Your task to perform on an android device: turn on wifi Image 0: 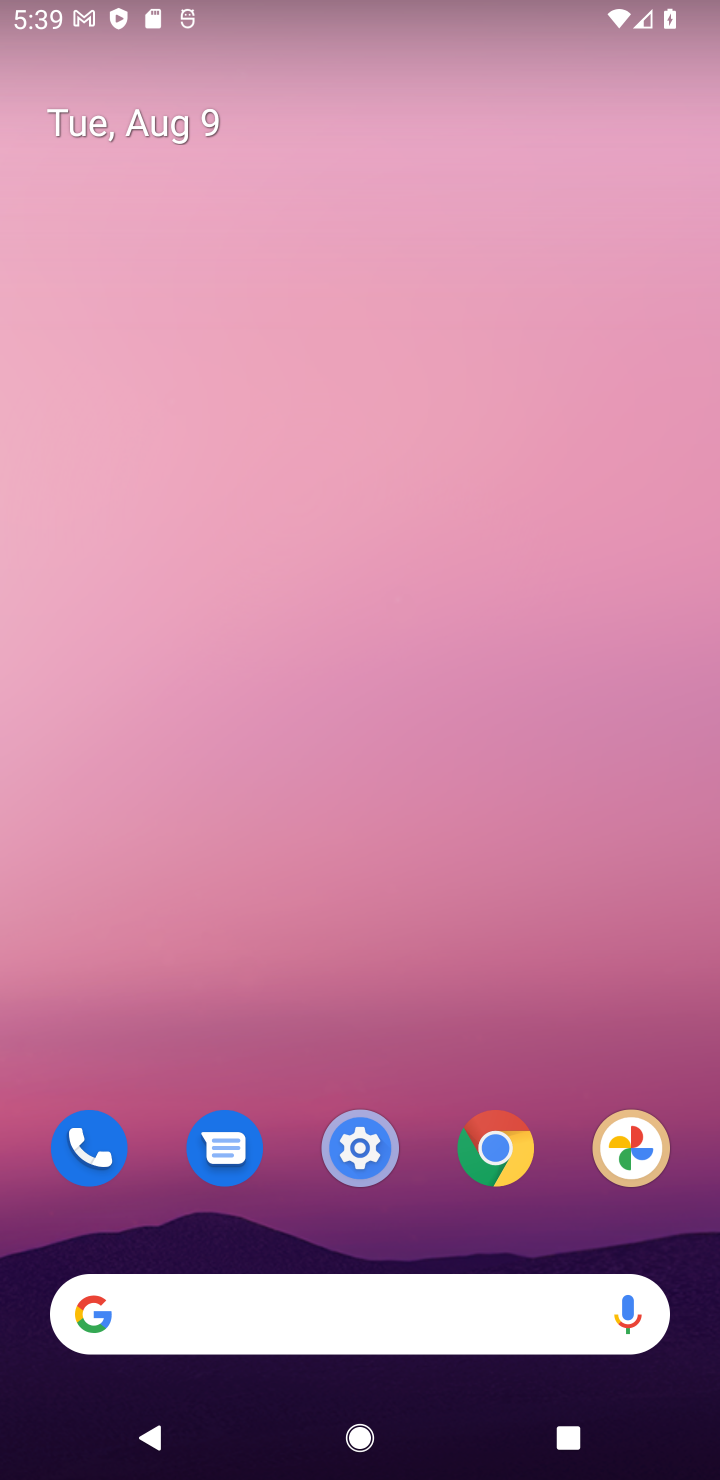
Step 0: click (380, 1167)
Your task to perform on an android device: turn on wifi Image 1: 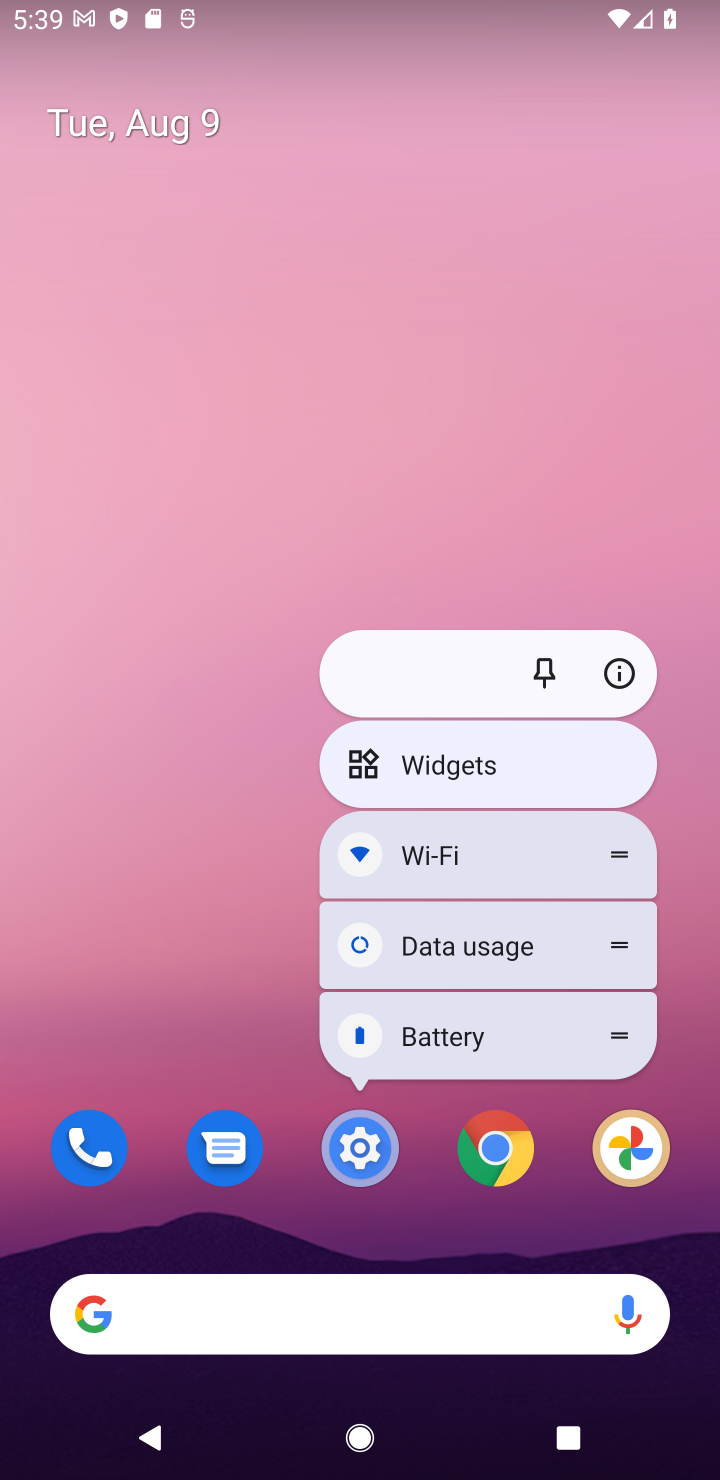
Step 1: click (372, 1145)
Your task to perform on an android device: turn on wifi Image 2: 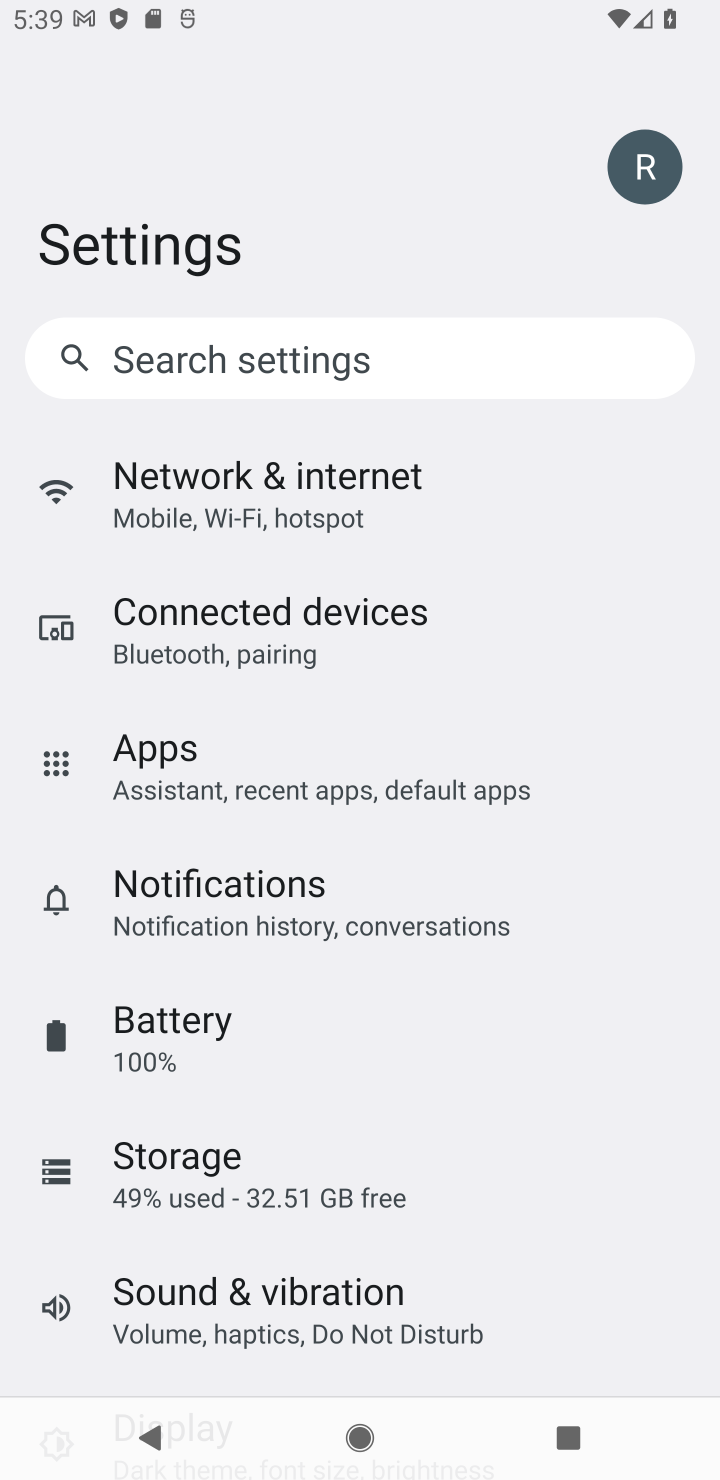
Step 2: click (253, 502)
Your task to perform on an android device: turn on wifi Image 3: 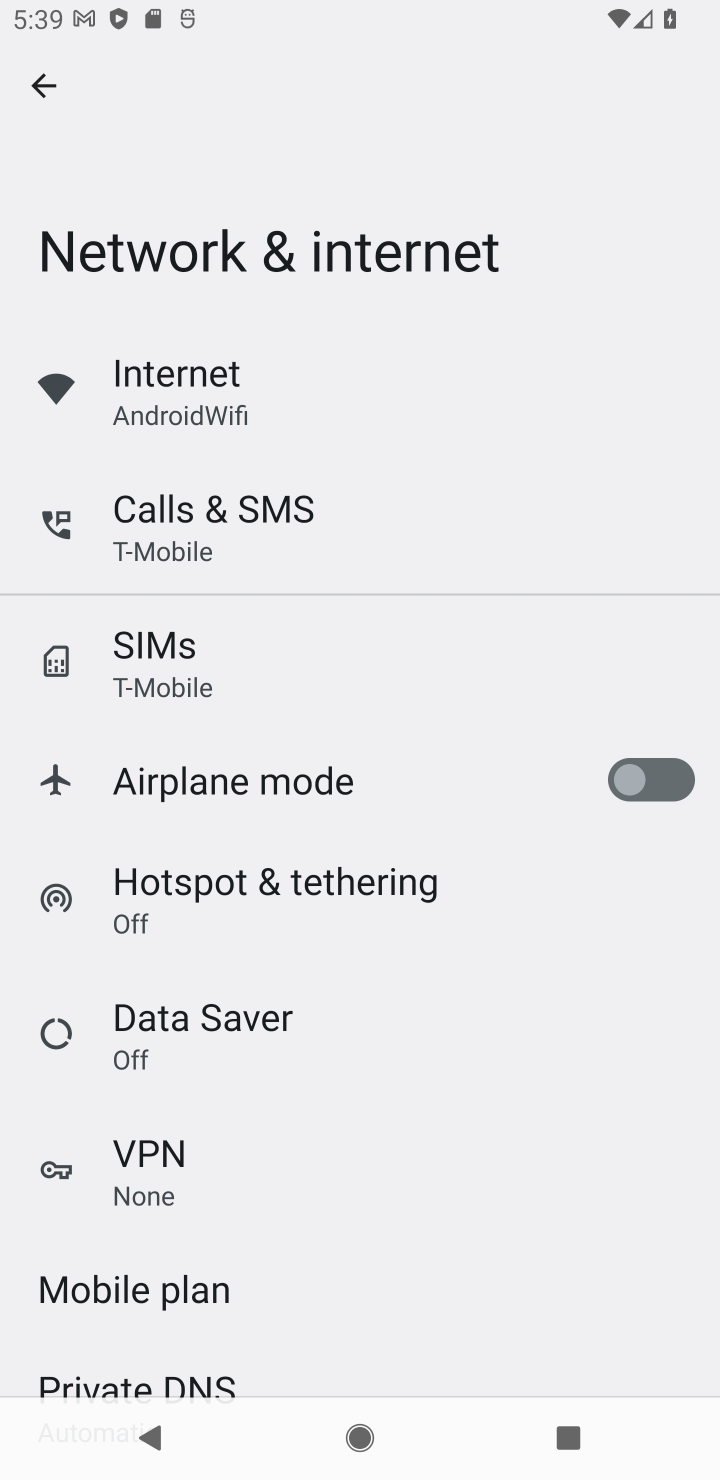
Step 3: click (177, 414)
Your task to perform on an android device: turn on wifi Image 4: 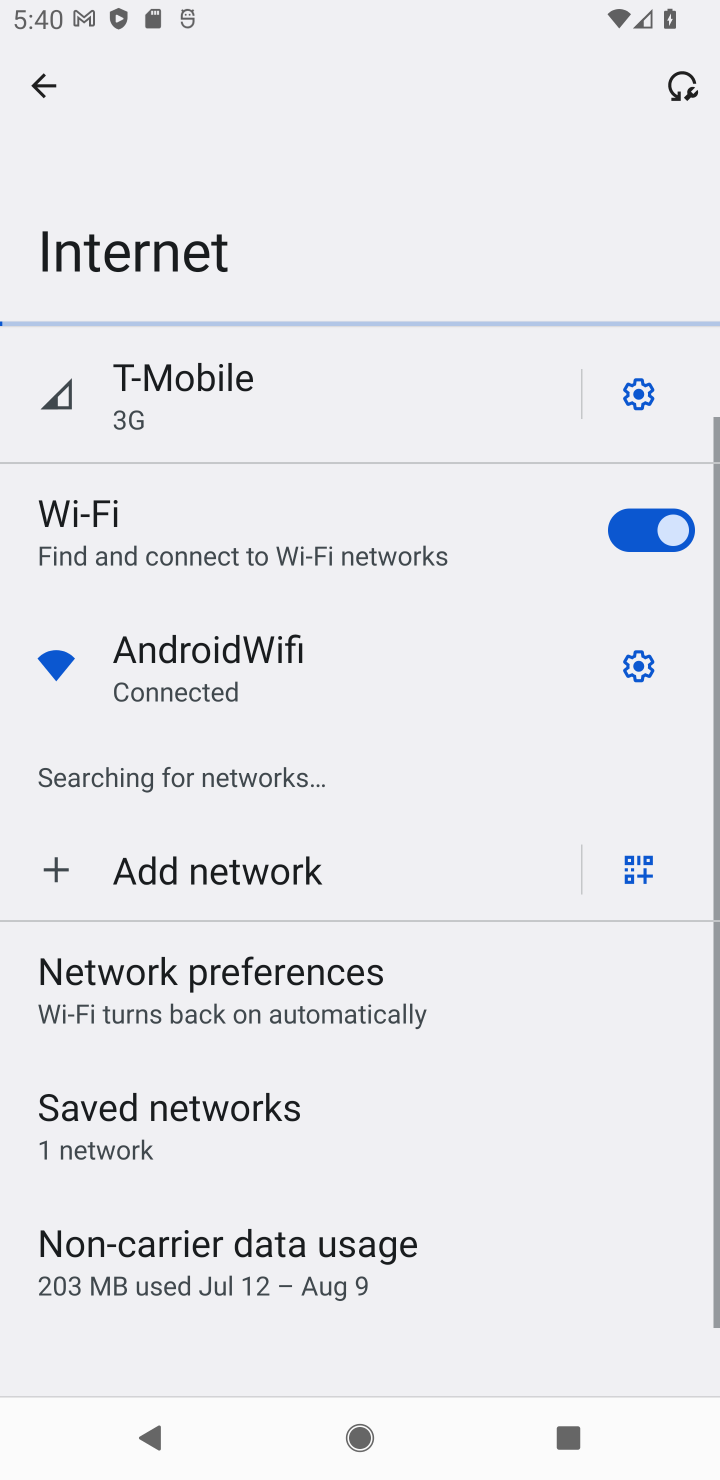
Step 4: task complete